Your task to perform on an android device: turn on sleep mode Image 0: 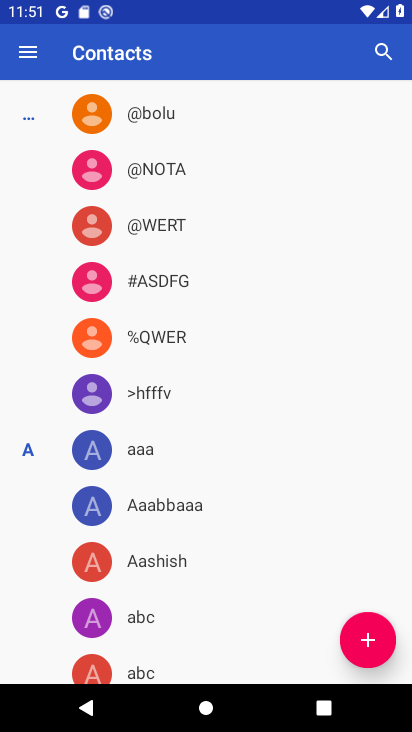
Step 0: press home button
Your task to perform on an android device: turn on sleep mode Image 1: 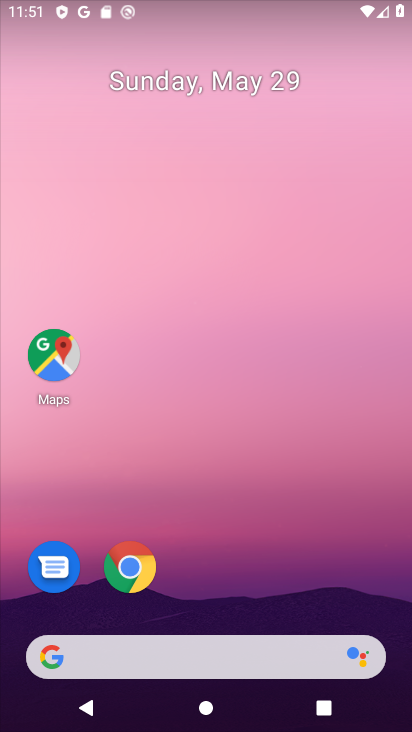
Step 1: task complete